Your task to perform on an android device: install app "DuckDuckGo Privacy Browser" Image 0: 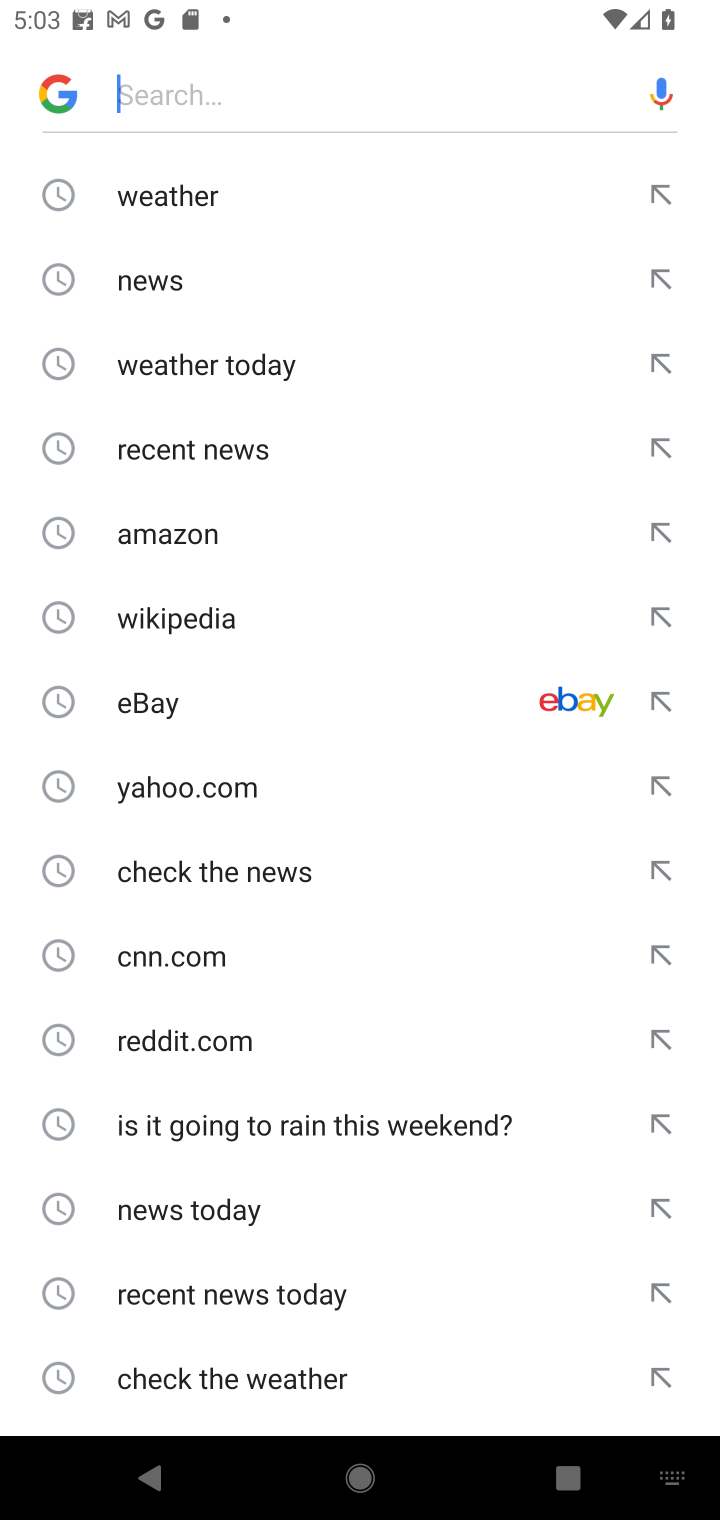
Step 0: press home button
Your task to perform on an android device: install app "DuckDuckGo Privacy Browser" Image 1: 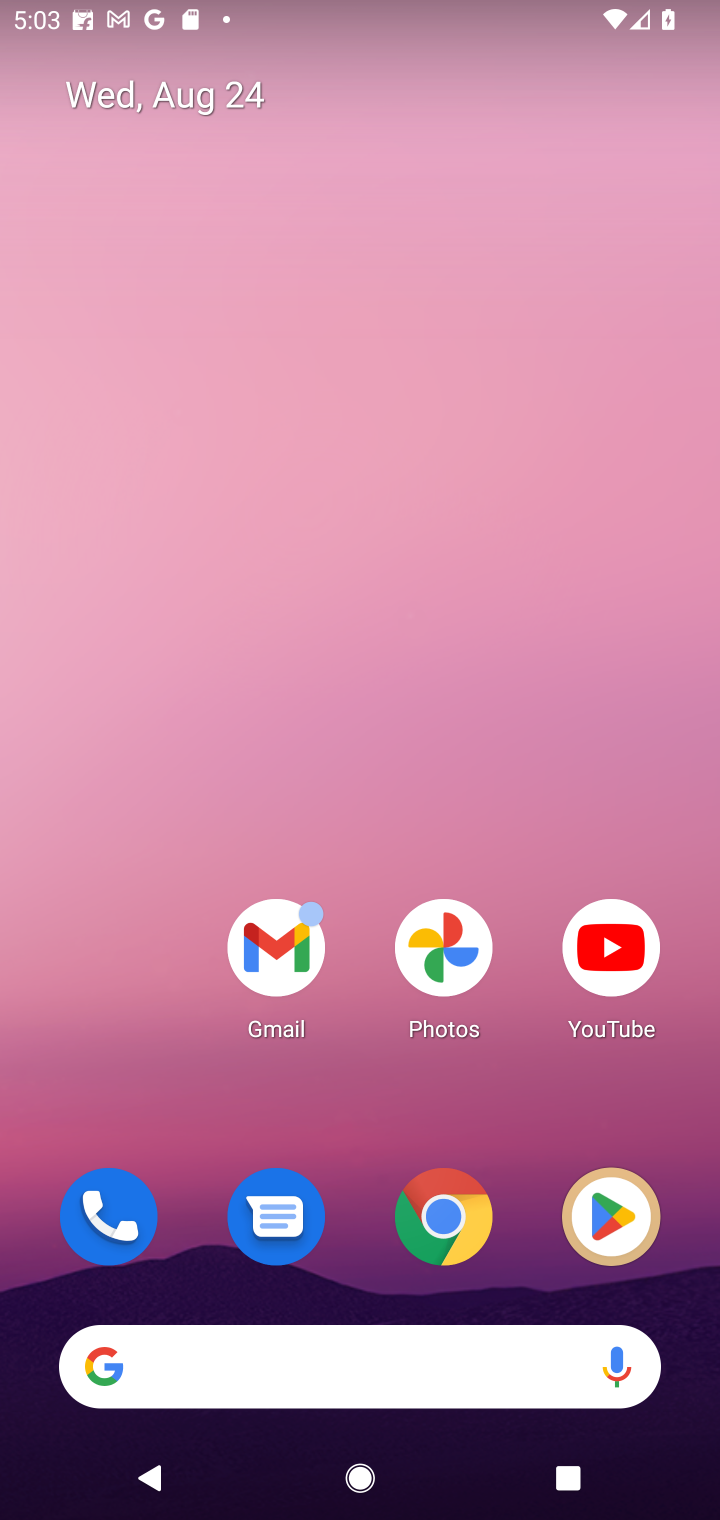
Step 1: click (586, 1200)
Your task to perform on an android device: install app "DuckDuckGo Privacy Browser" Image 2: 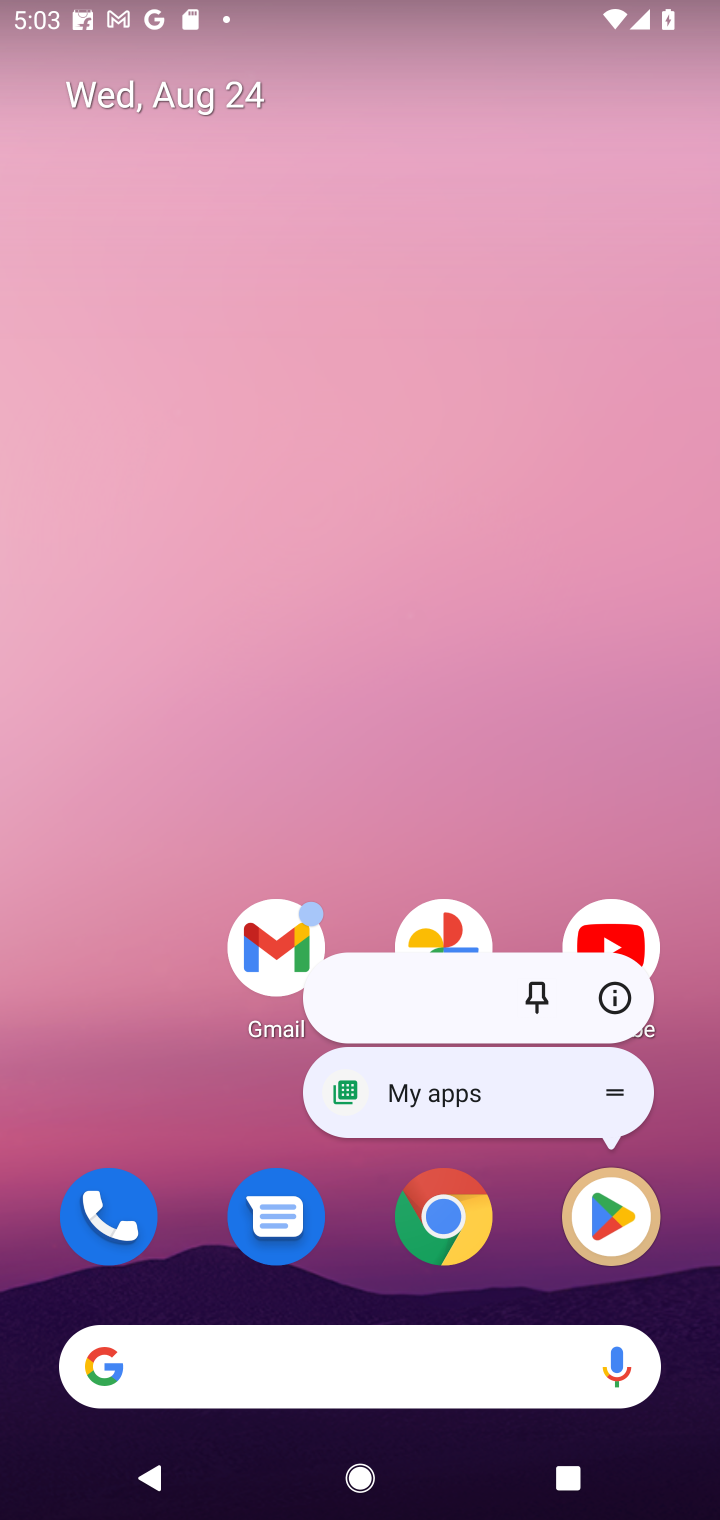
Step 2: click (577, 1236)
Your task to perform on an android device: install app "DuckDuckGo Privacy Browser" Image 3: 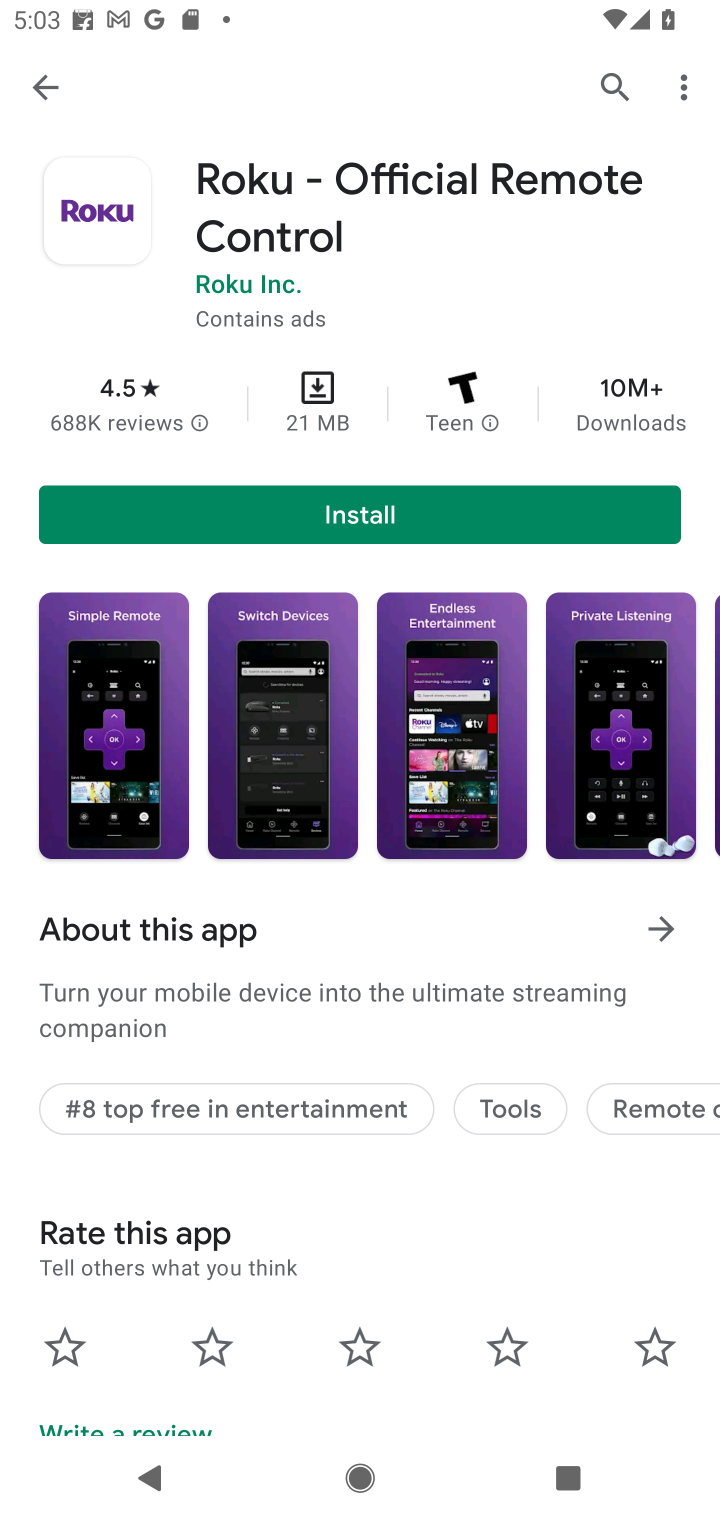
Step 3: click (601, 78)
Your task to perform on an android device: install app "DuckDuckGo Privacy Browser" Image 4: 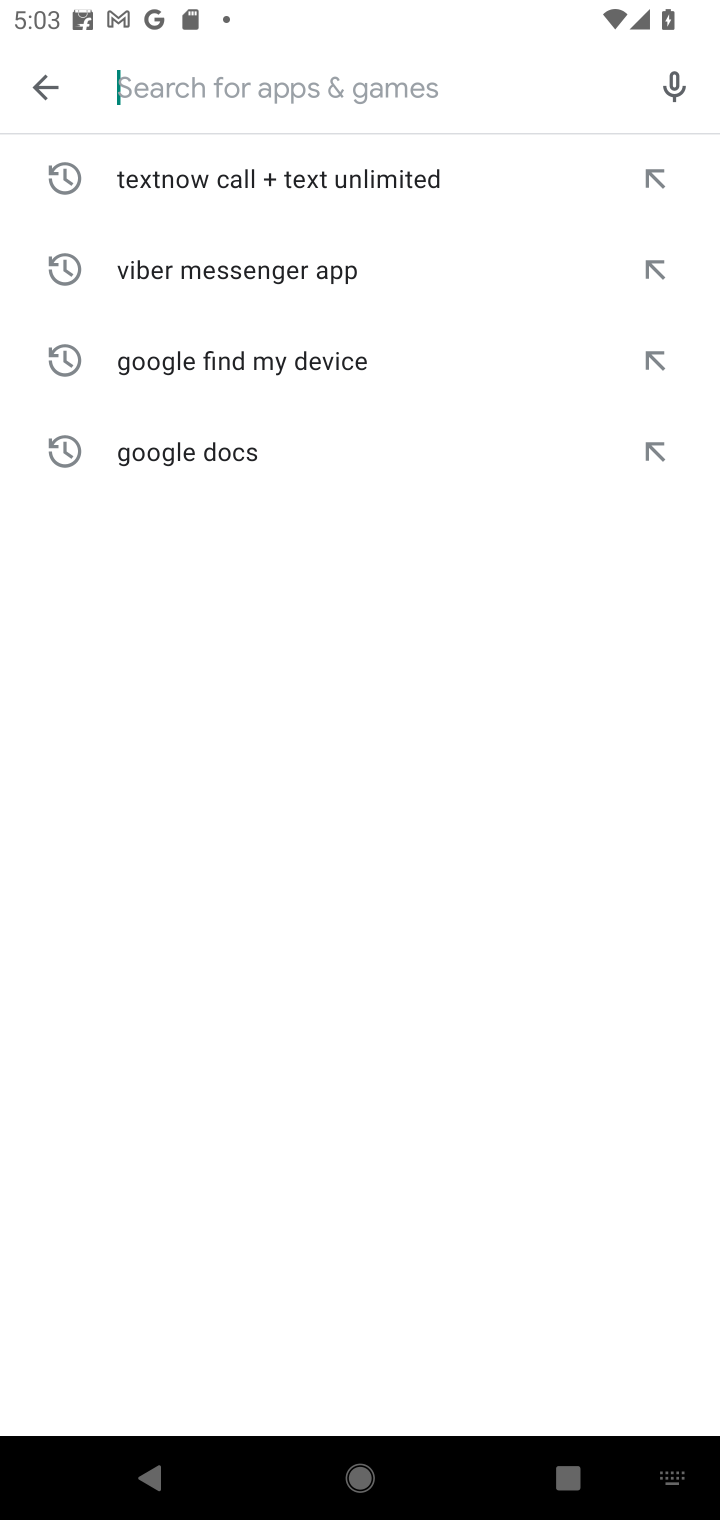
Step 4: type "DuckDuckGo Privacy Browse"
Your task to perform on an android device: install app "DuckDuckGo Privacy Browser" Image 5: 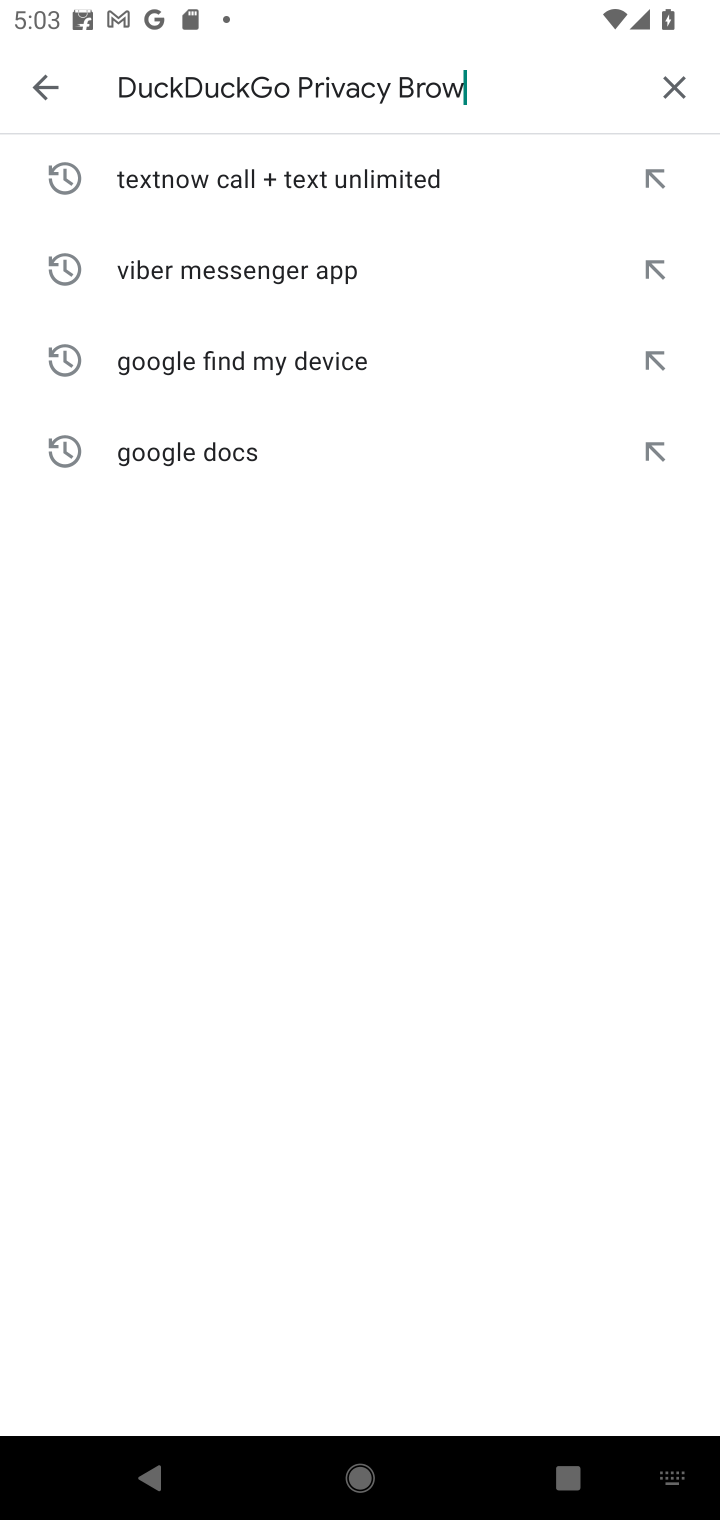
Step 5: type ""
Your task to perform on an android device: install app "DuckDuckGo Privacy Browser" Image 6: 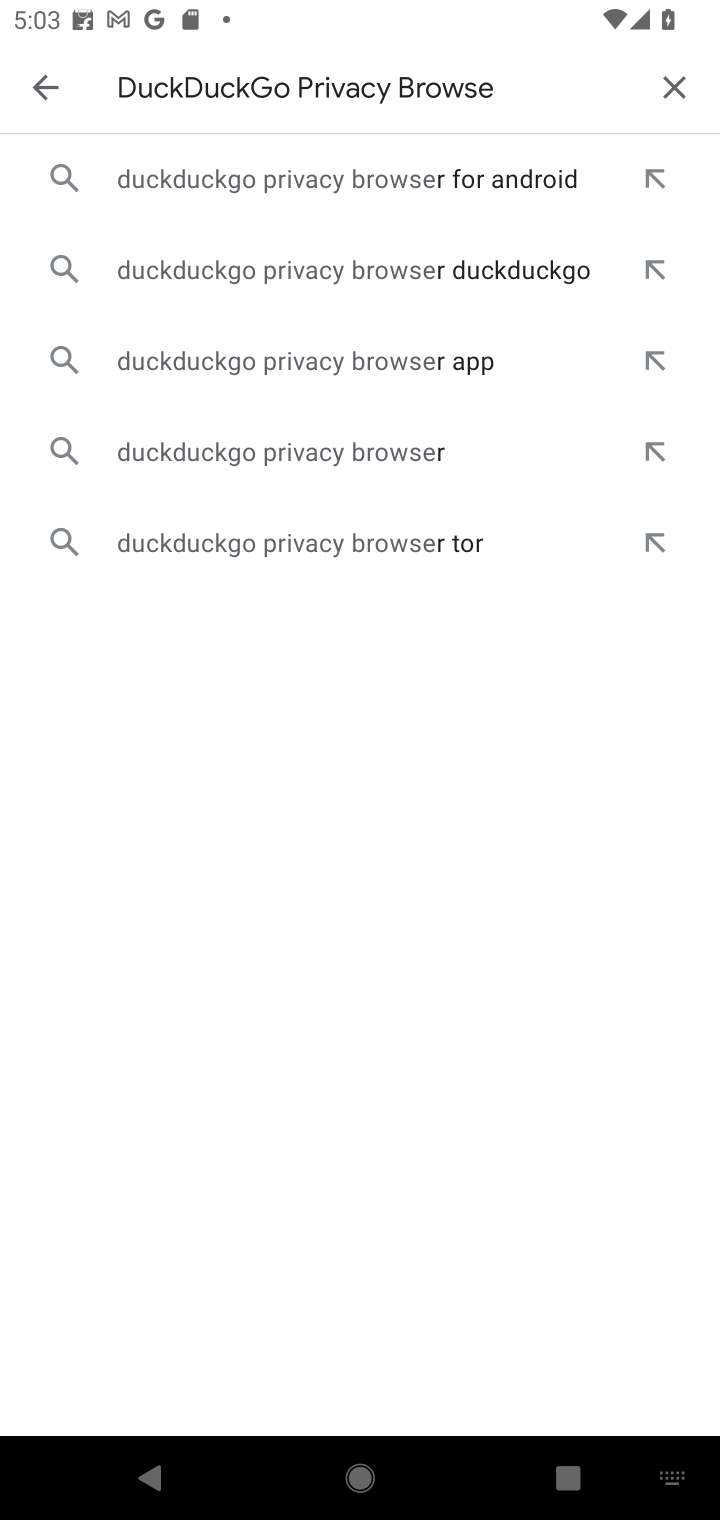
Step 6: click (245, 180)
Your task to perform on an android device: install app "DuckDuckGo Privacy Browser" Image 7: 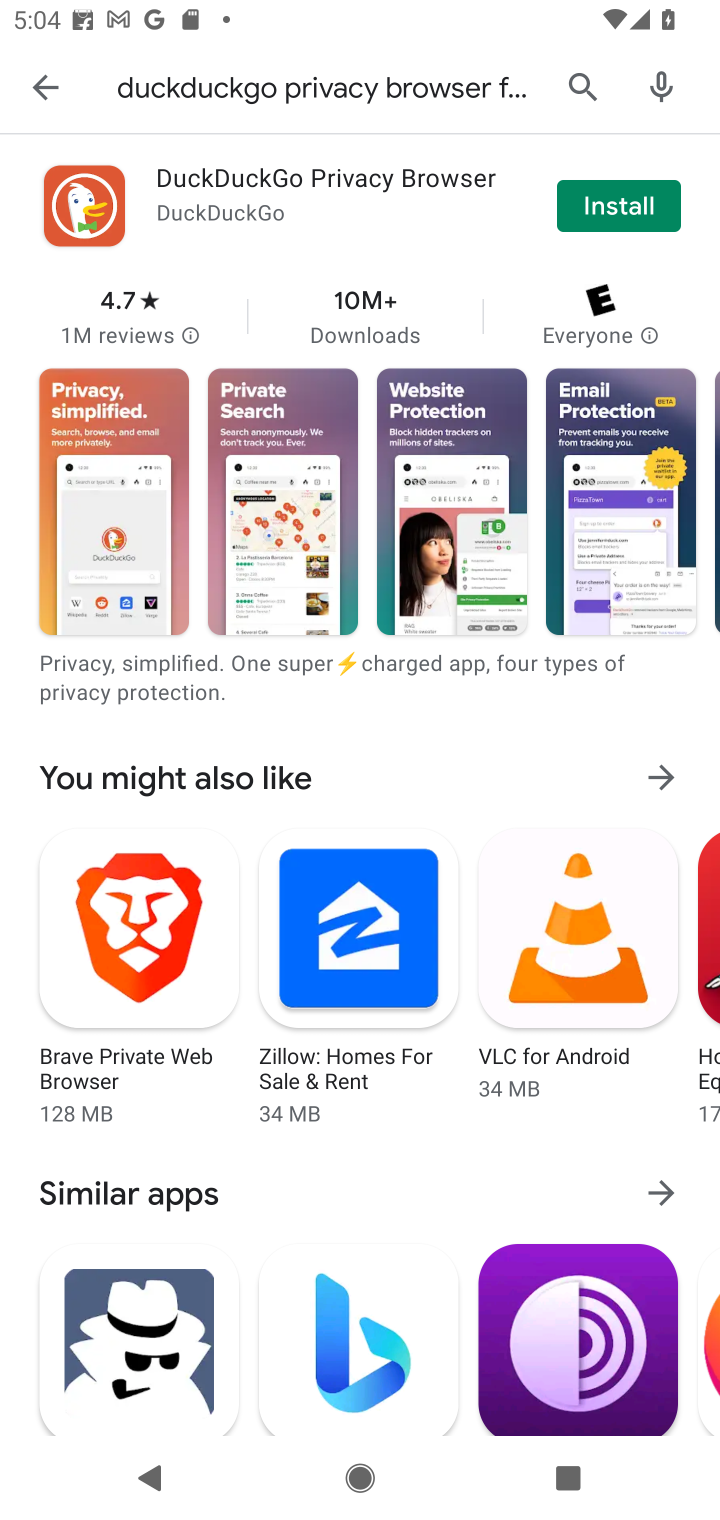
Step 7: click (631, 204)
Your task to perform on an android device: install app "DuckDuckGo Privacy Browser" Image 8: 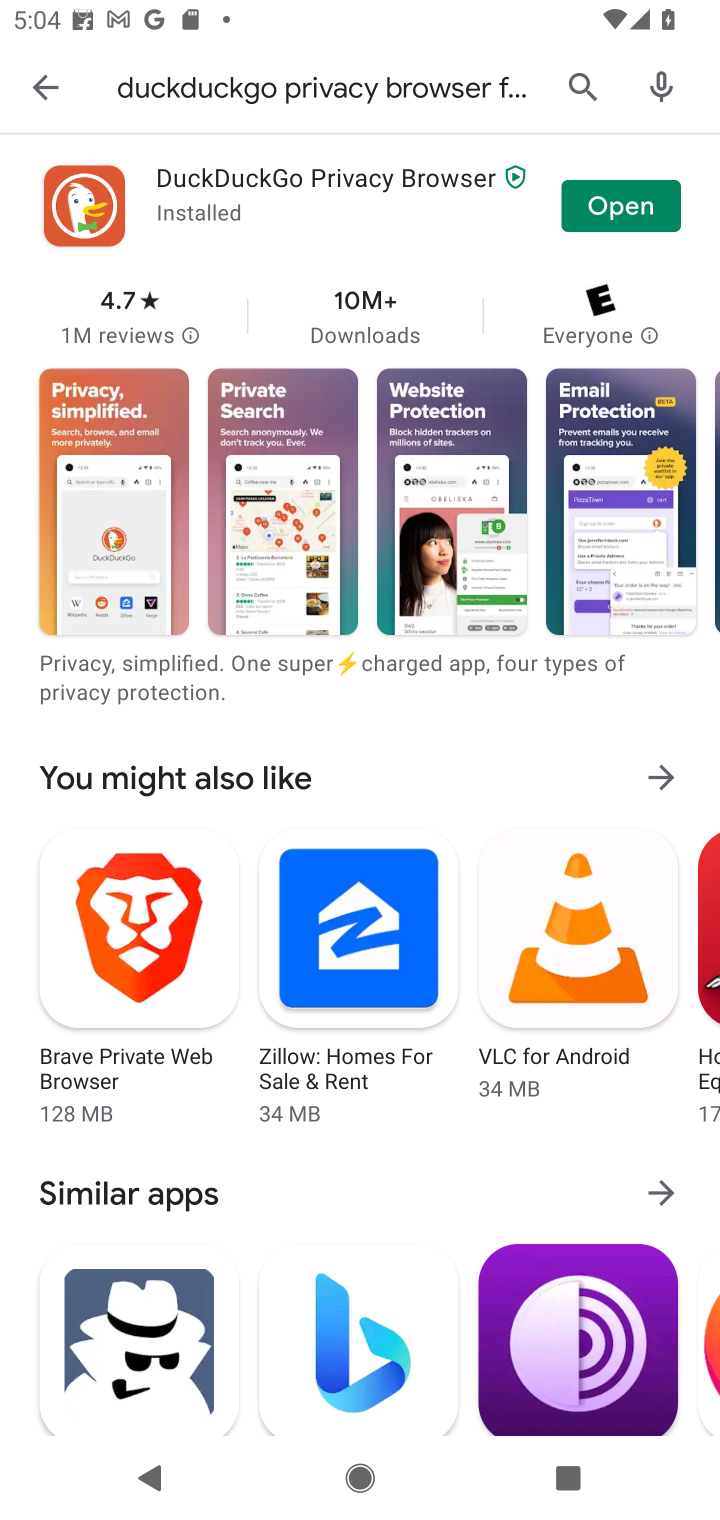
Step 8: task complete